Your task to perform on an android device: open app "LiveIn - Share Your Moment" Image 0: 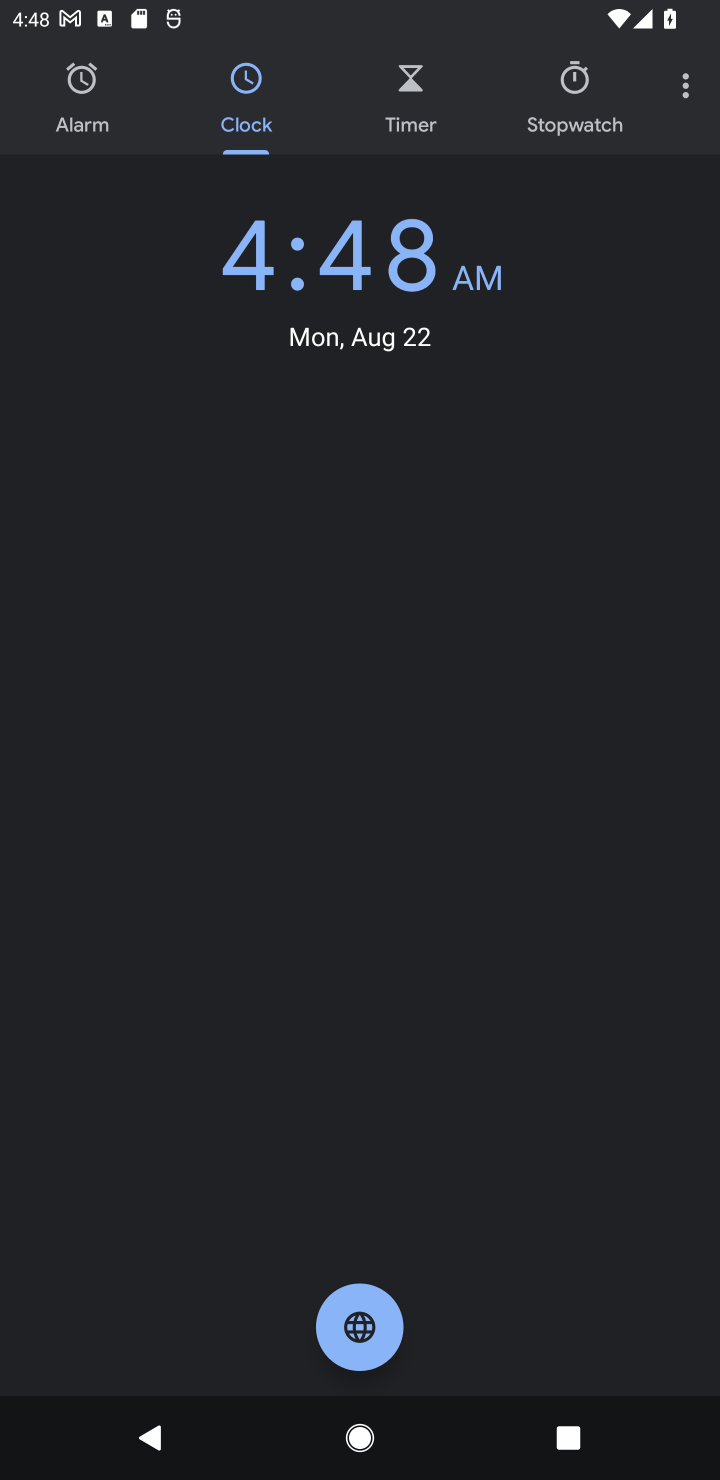
Step 0: press home button
Your task to perform on an android device: open app "LiveIn - Share Your Moment" Image 1: 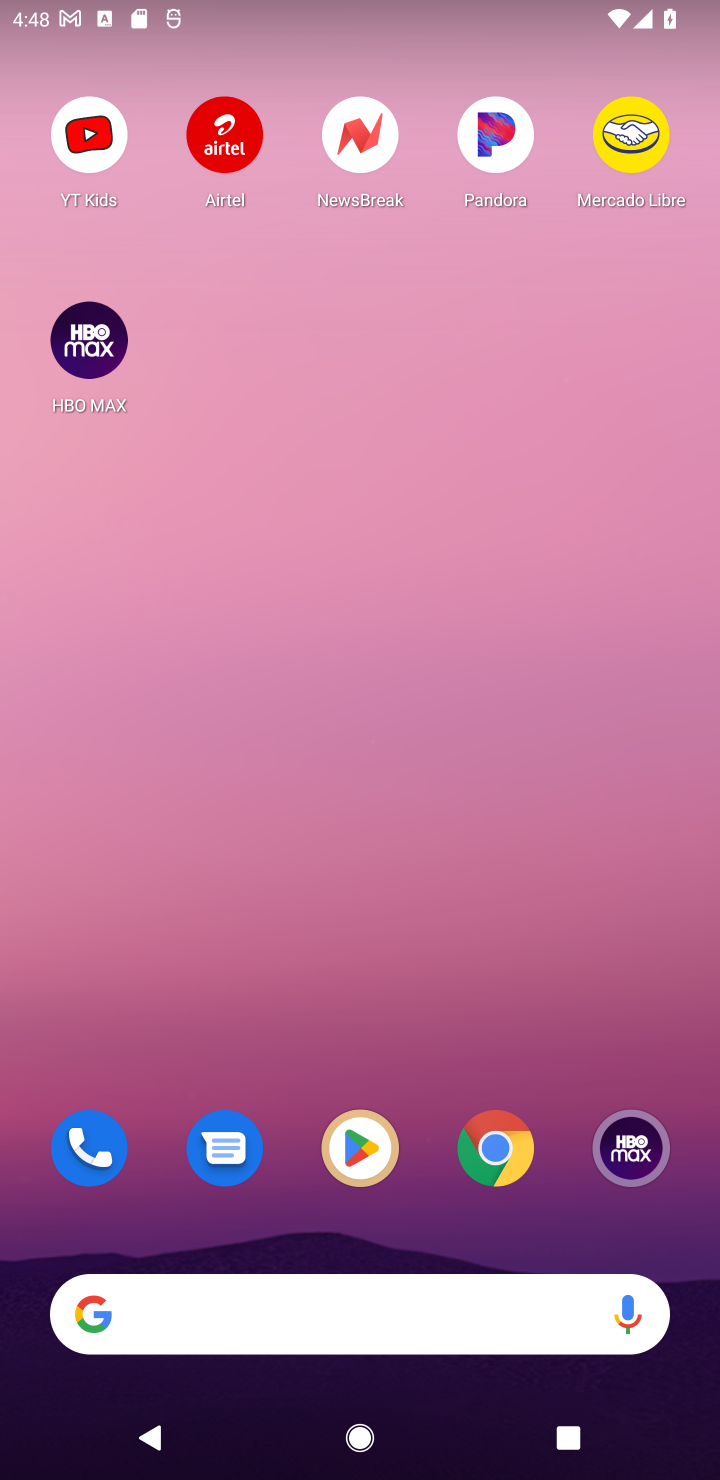
Step 1: click (359, 1151)
Your task to perform on an android device: open app "LiveIn - Share Your Moment" Image 2: 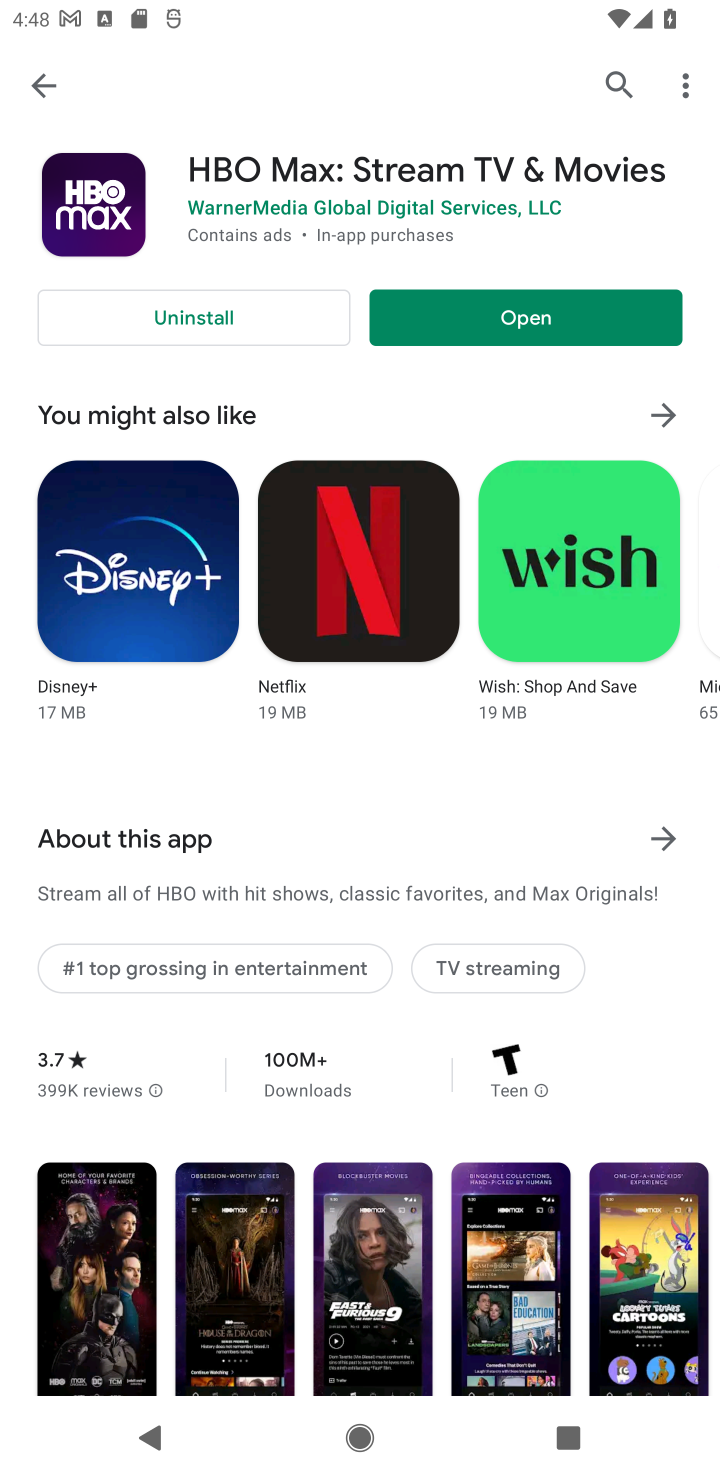
Step 2: click (613, 84)
Your task to perform on an android device: open app "LiveIn - Share Your Moment" Image 3: 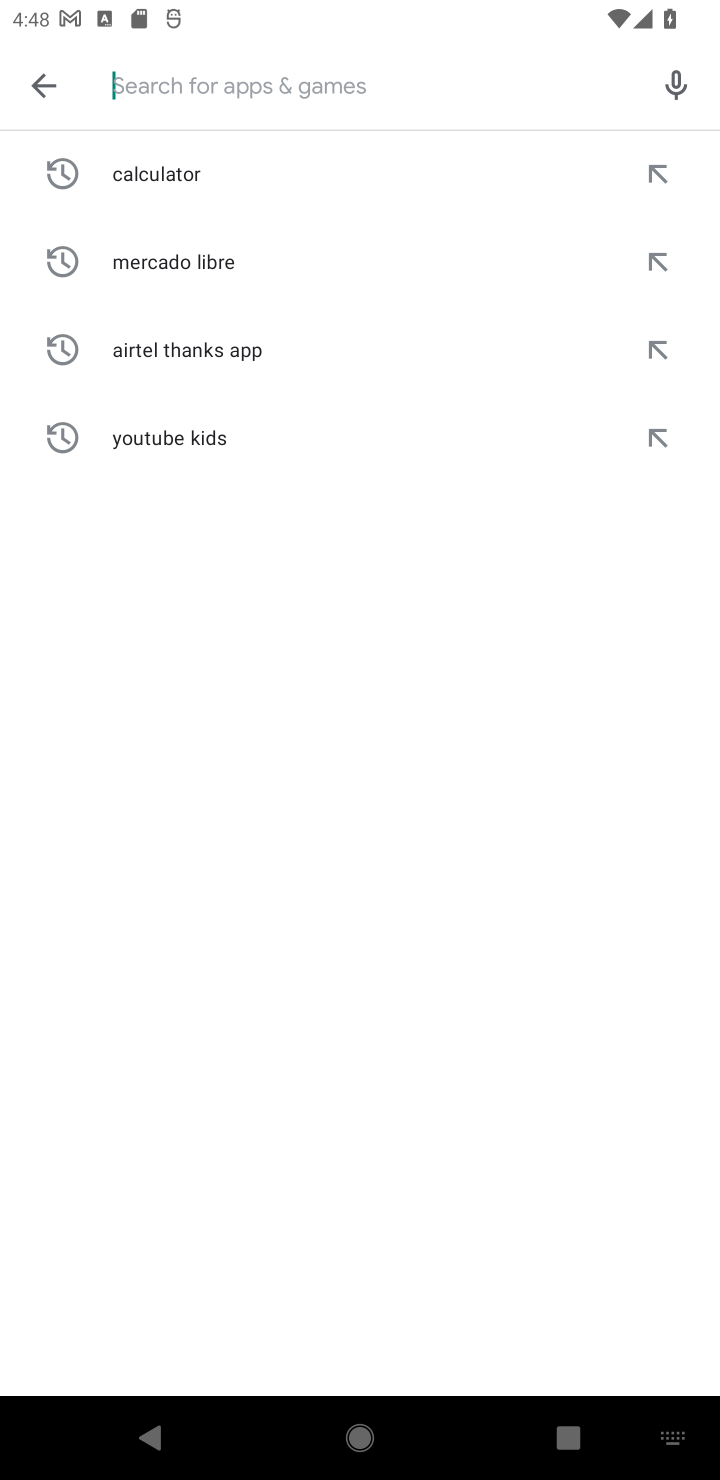
Step 3: type "LiveIn - Share Your Moment"
Your task to perform on an android device: open app "LiveIn - Share Your Moment" Image 4: 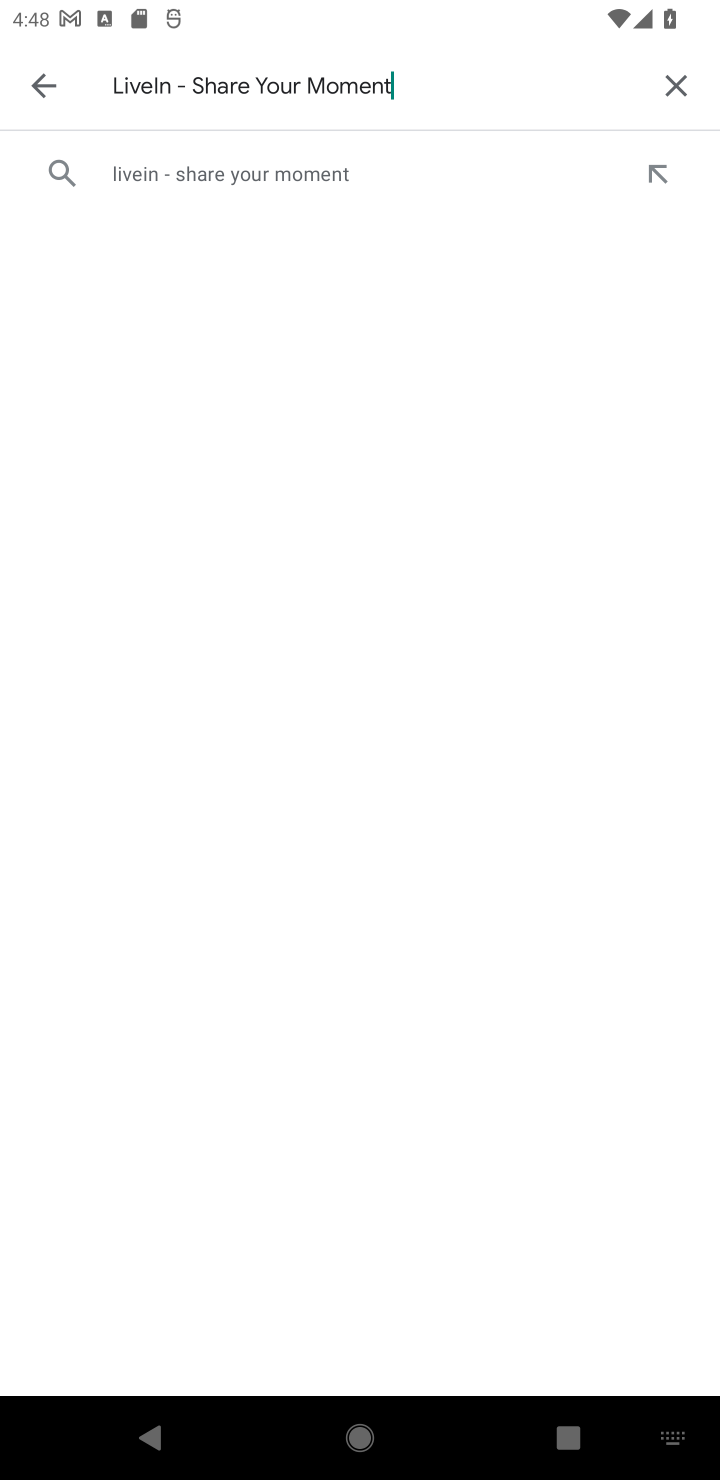
Step 4: click (209, 174)
Your task to perform on an android device: open app "LiveIn - Share Your Moment" Image 5: 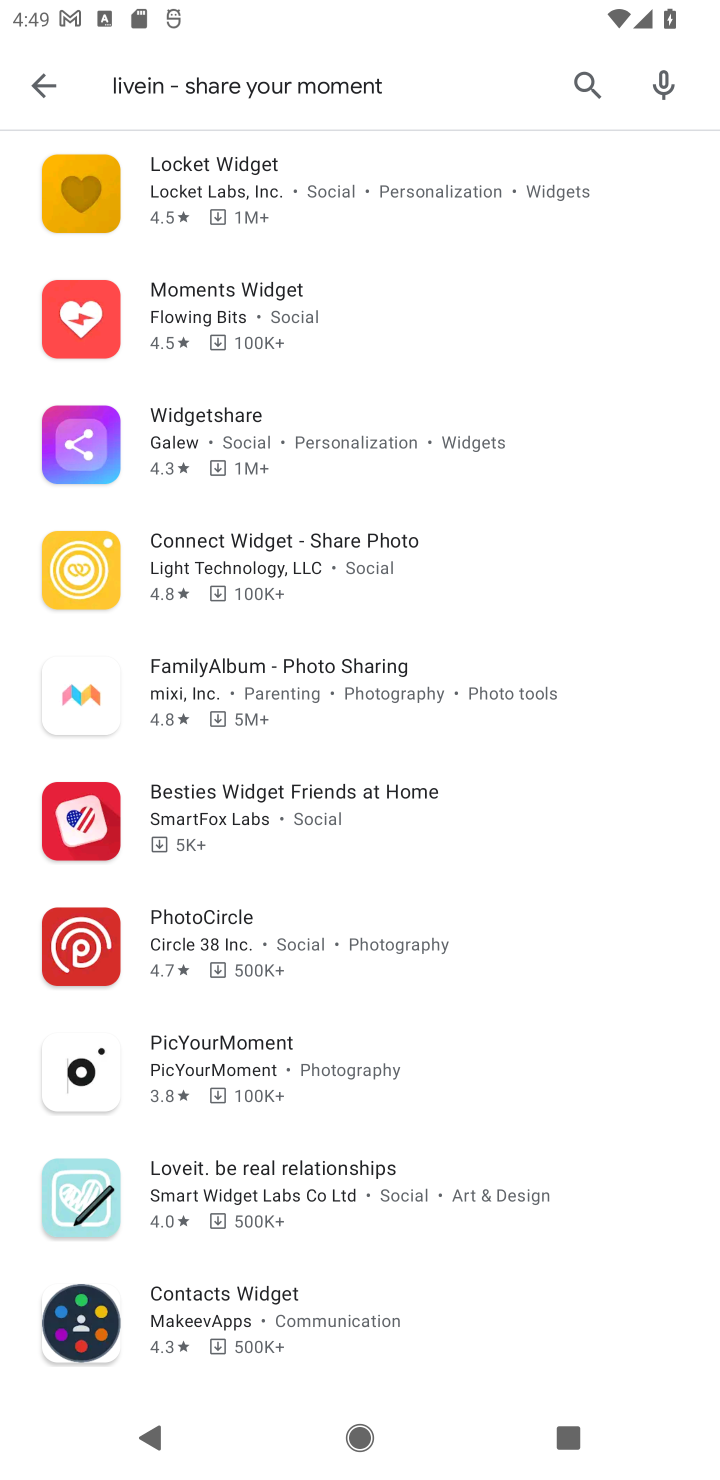
Step 5: task complete